Your task to perform on an android device: Search for vegetarian restaurants on Maps Image 0: 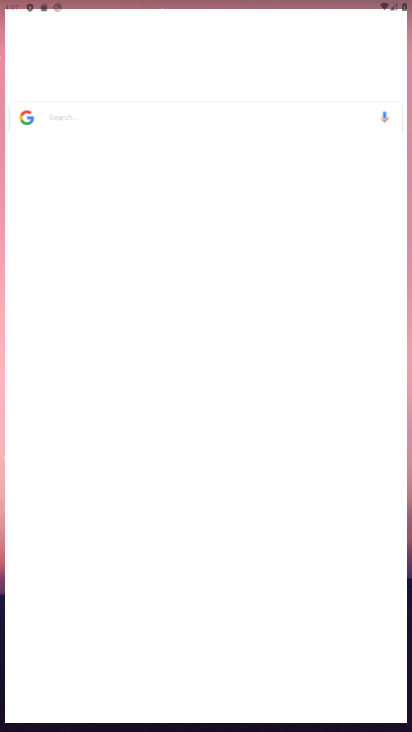
Step 0: drag from (223, 651) to (201, 271)
Your task to perform on an android device: Search for vegetarian restaurants on Maps Image 1: 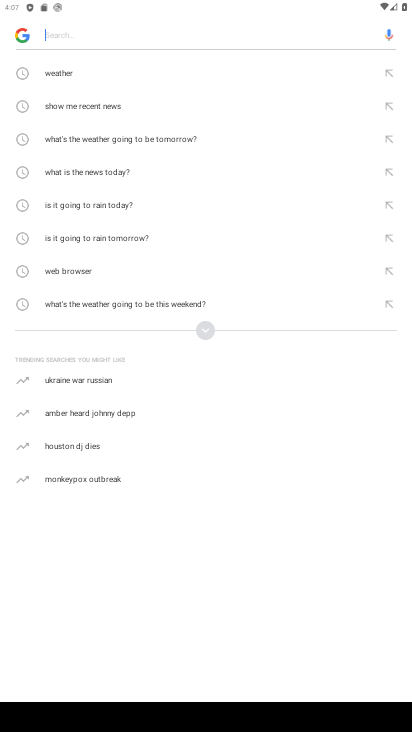
Step 1: press home button
Your task to perform on an android device: Search for vegetarian restaurants on Maps Image 2: 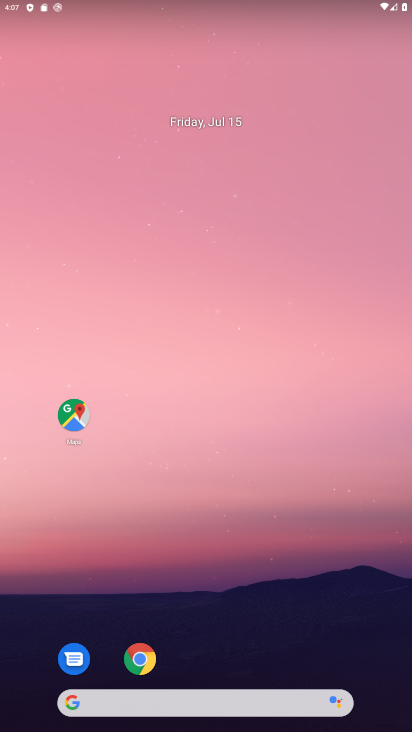
Step 2: click (81, 406)
Your task to perform on an android device: Search for vegetarian restaurants on Maps Image 3: 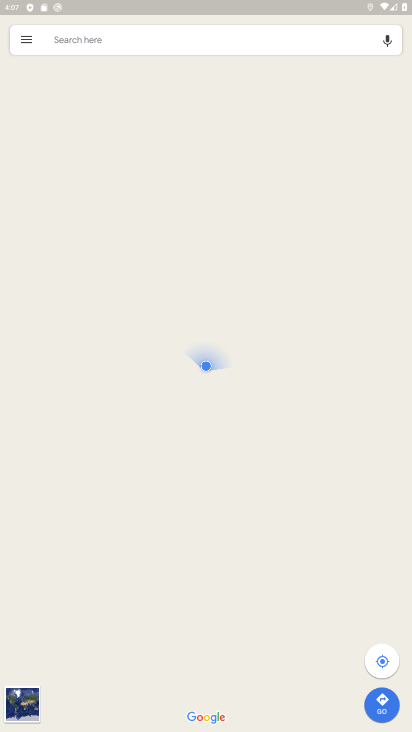
Step 3: click (196, 31)
Your task to perform on an android device: Search for vegetarian restaurants on Maps Image 4: 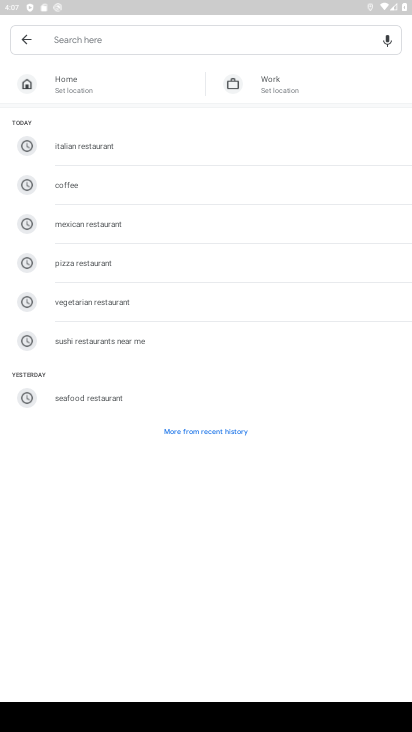
Step 4: type "vegetarian restaurants"
Your task to perform on an android device: Search for vegetarian restaurants on Maps Image 5: 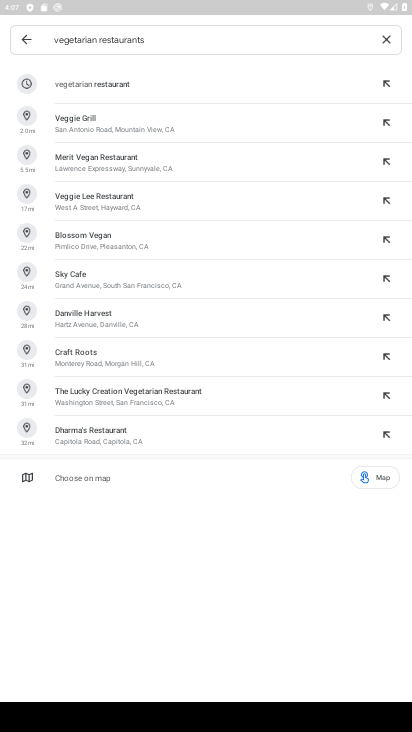
Step 5: click (186, 87)
Your task to perform on an android device: Search for vegetarian restaurants on Maps Image 6: 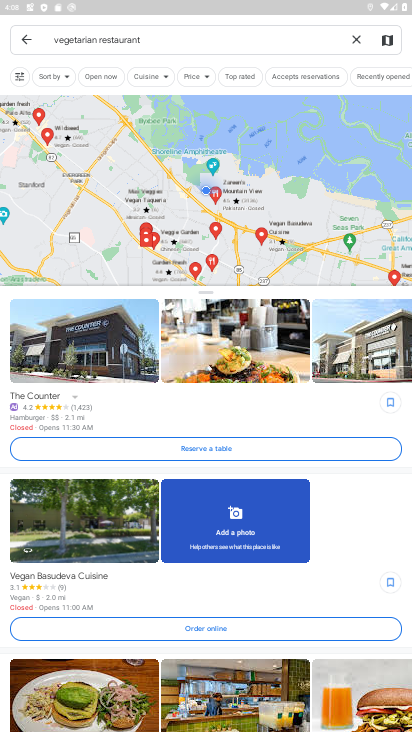
Step 6: task complete